Your task to perform on an android device: Is it going to rain today? Image 0: 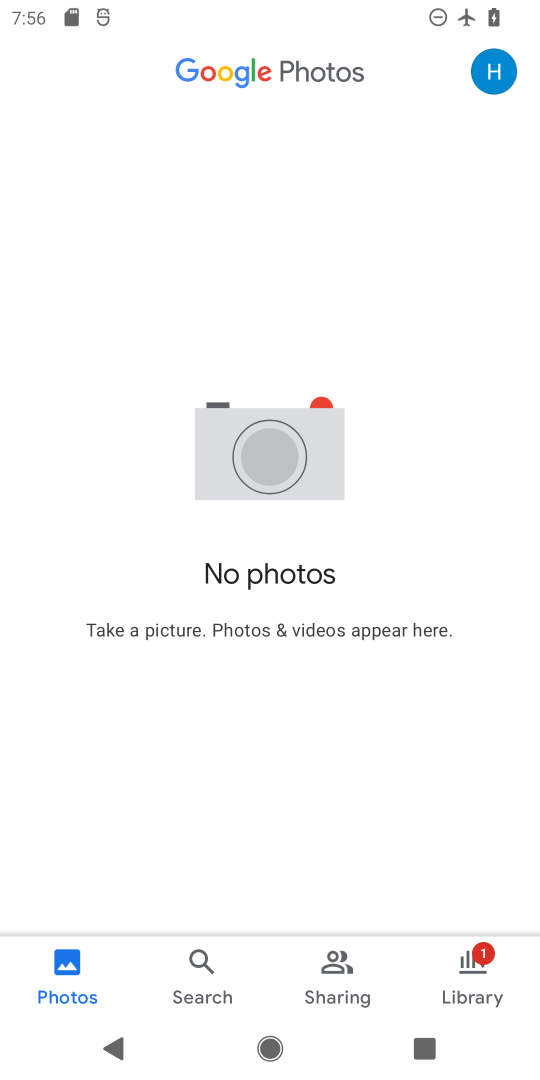
Step 0: press home button
Your task to perform on an android device: Is it going to rain today? Image 1: 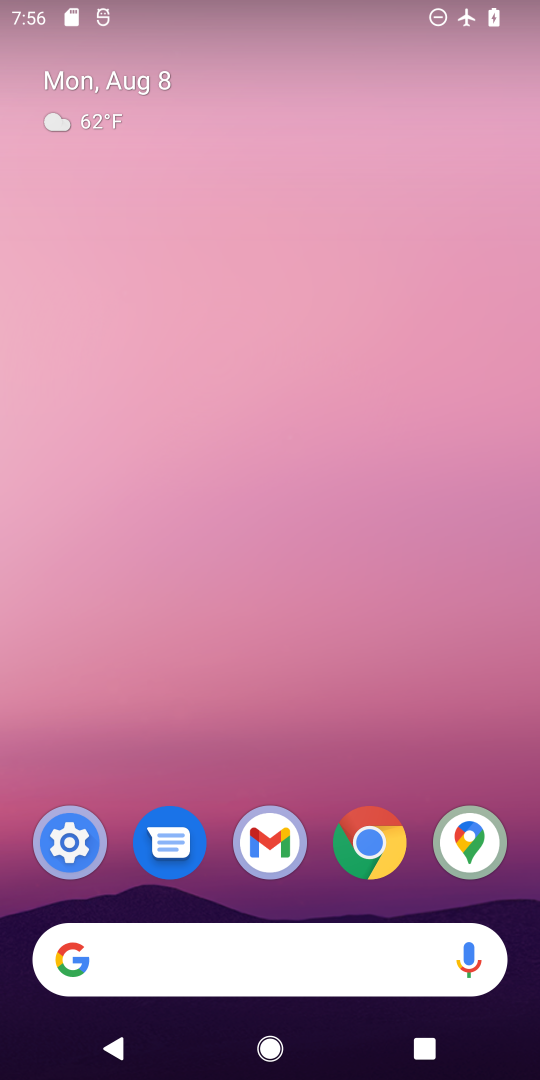
Step 1: click (425, 976)
Your task to perform on an android device: Is it going to rain today? Image 2: 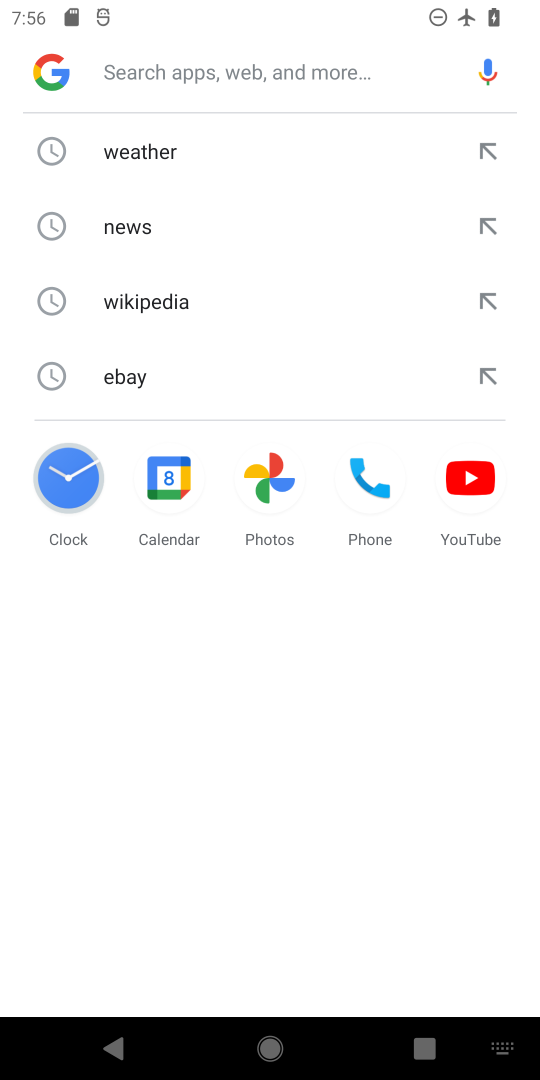
Step 2: click (112, 154)
Your task to perform on an android device: Is it going to rain today? Image 3: 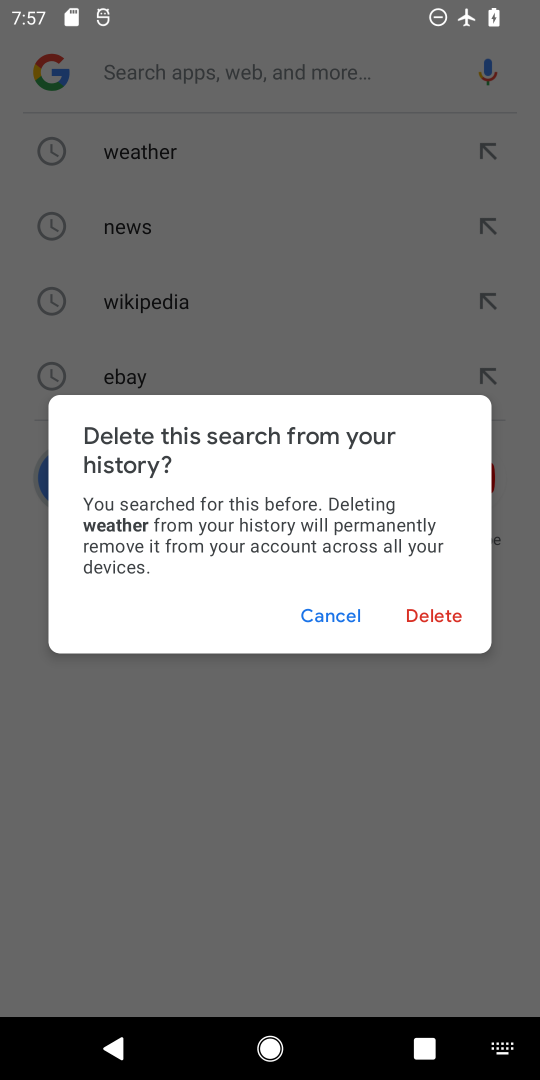
Step 3: click (333, 629)
Your task to perform on an android device: Is it going to rain today? Image 4: 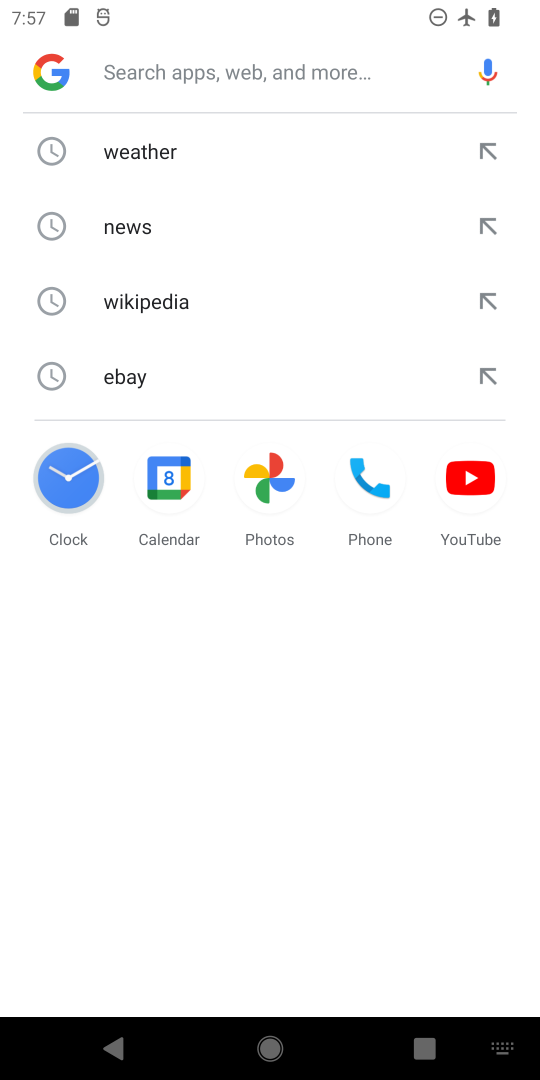
Step 4: click (201, 181)
Your task to perform on an android device: Is it going to rain today? Image 5: 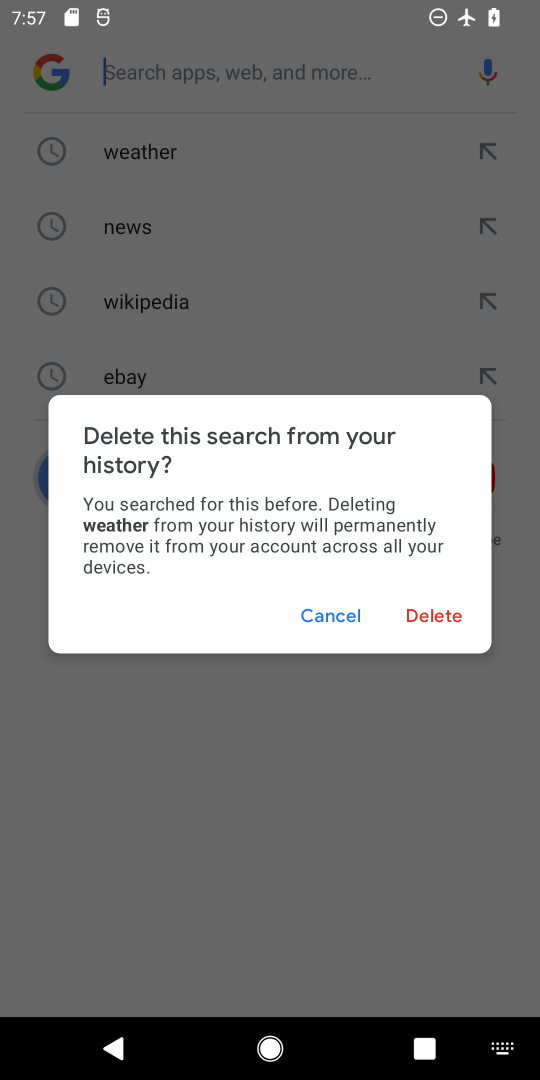
Step 5: click (319, 606)
Your task to perform on an android device: Is it going to rain today? Image 6: 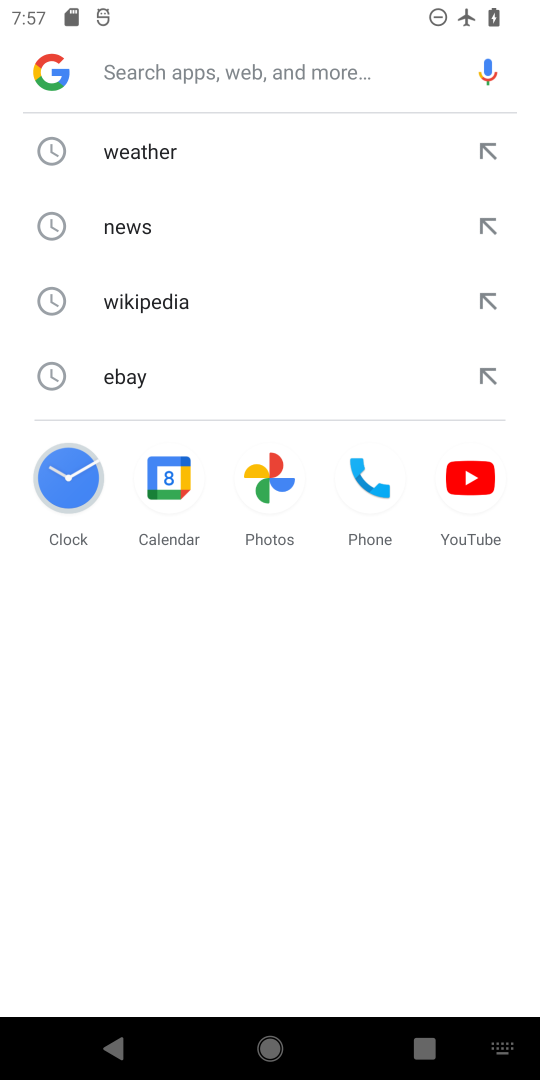
Step 6: click (120, 105)
Your task to perform on an android device: Is it going to rain today? Image 7: 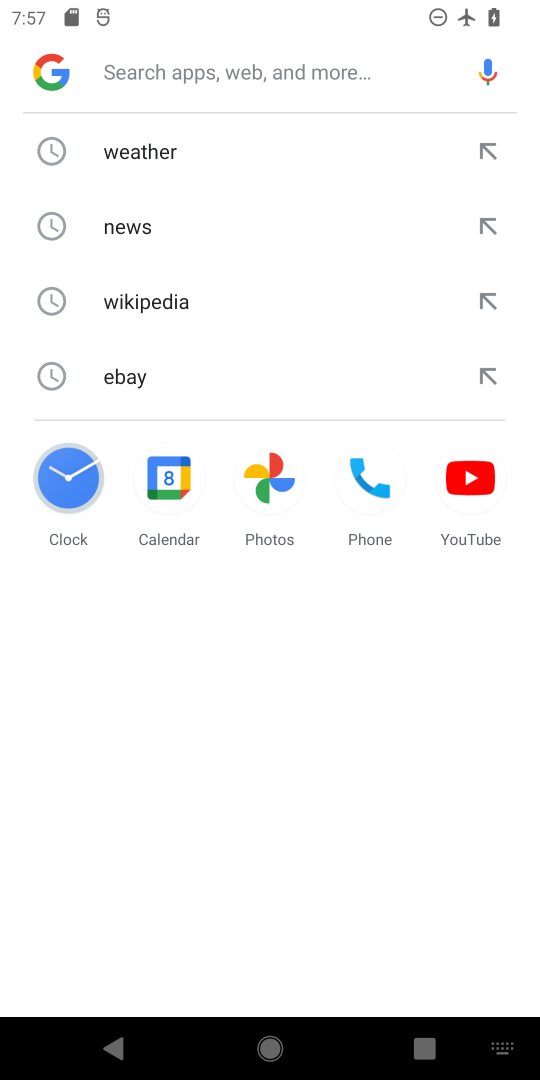
Step 7: click (128, 150)
Your task to perform on an android device: Is it going to rain today? Image 8: 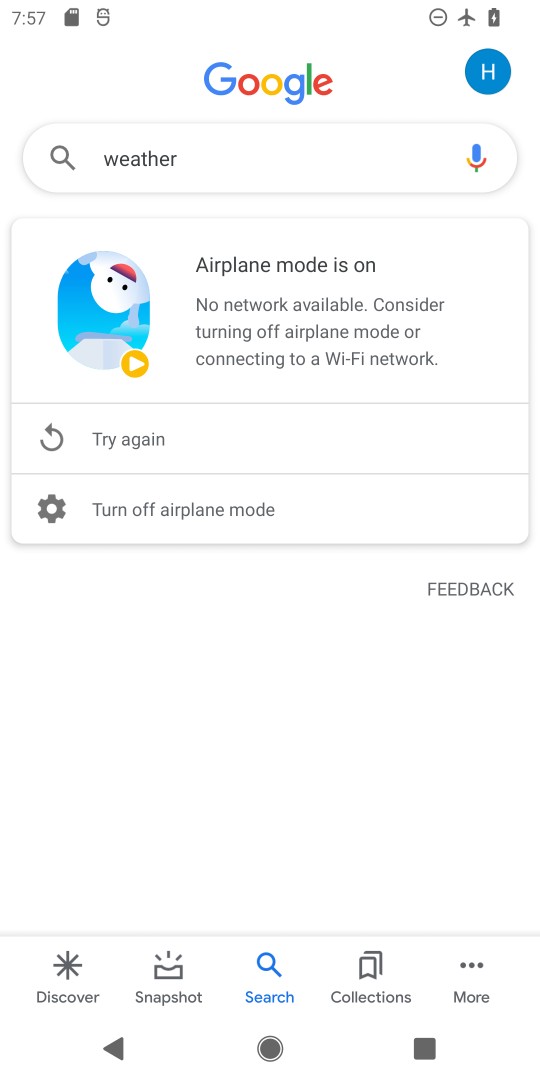
Step 8: task complete